Your task to perform on an android device: toggle sleep mode Image 0: 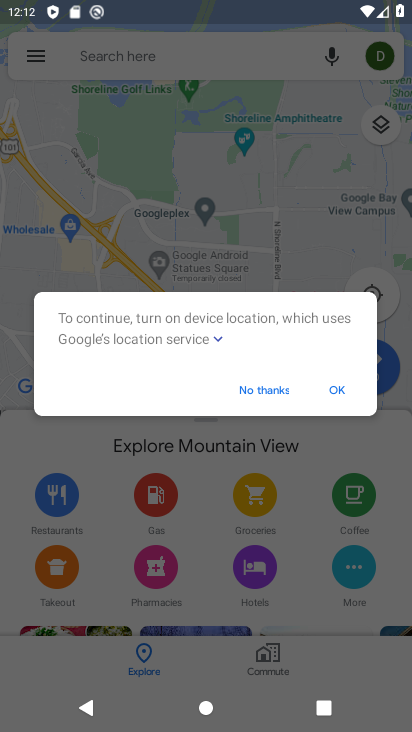
Step 0: press home button
Your task to perform on an android device: toggle sleep mode Image 1: 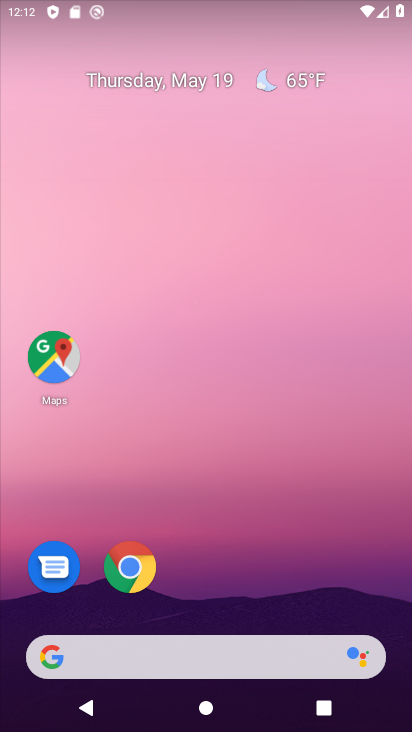
Step 1: drag from (245, 568) to (253, 177)
Your task to perform on an android device: toggle sleep mode Image 2: 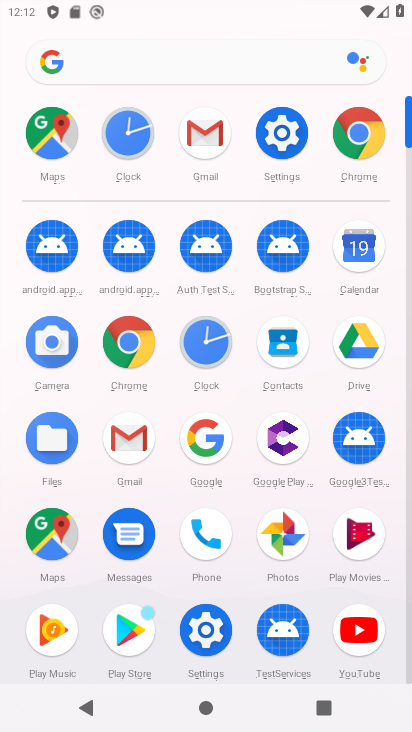
Step 2: click (286, 141)
Your task to perform on an android device: toggle sleep mode Image 3: 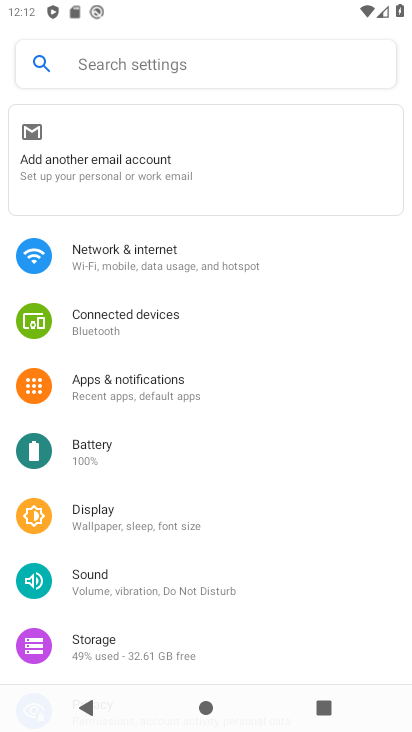
Step 3: click (162, 517)
Your task to perform on an android device: toggle sleep mode Image 4: 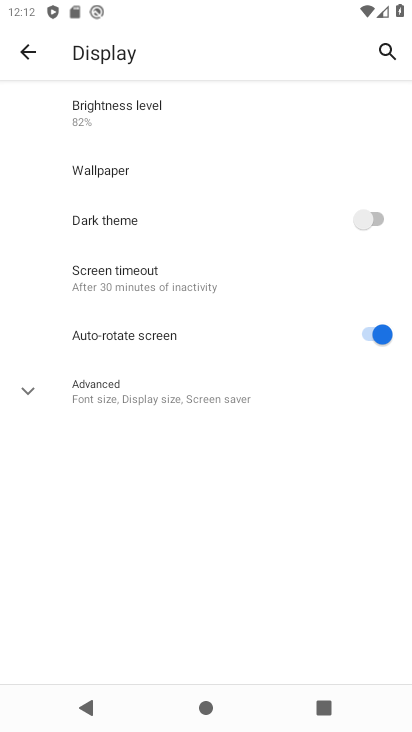
Step 4: click (213, 395)
Your task to perform on an android device: toggle sleep mode Image 5: 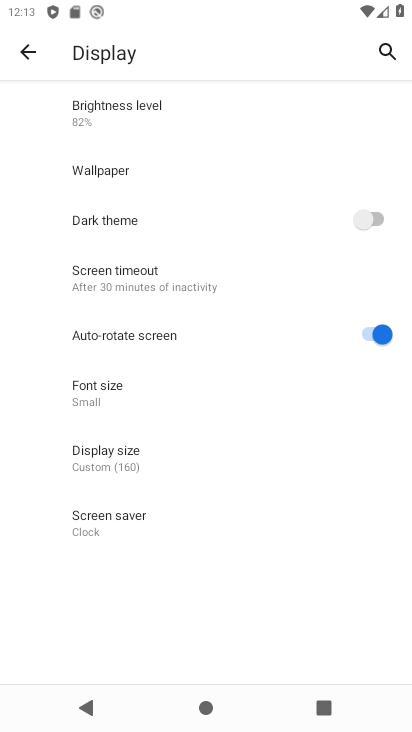
Step 5: task complete